Your task to perform on an android device: Open Chrome and go to the settings page Image 0: 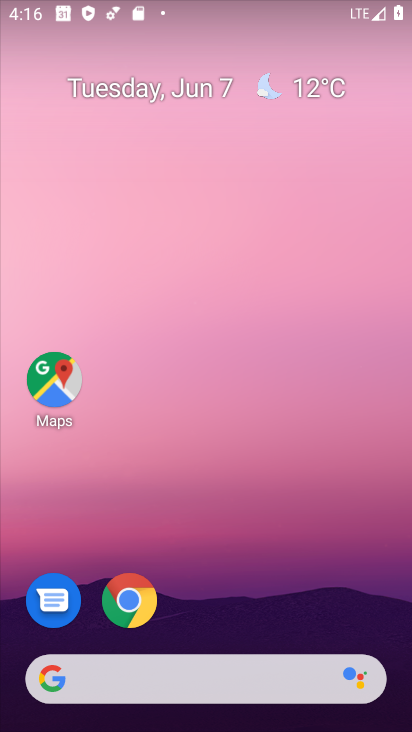
Step 0: click (133, 610)
Your task to perform on an android device: Open Chrome and go to the settings page Image 1: 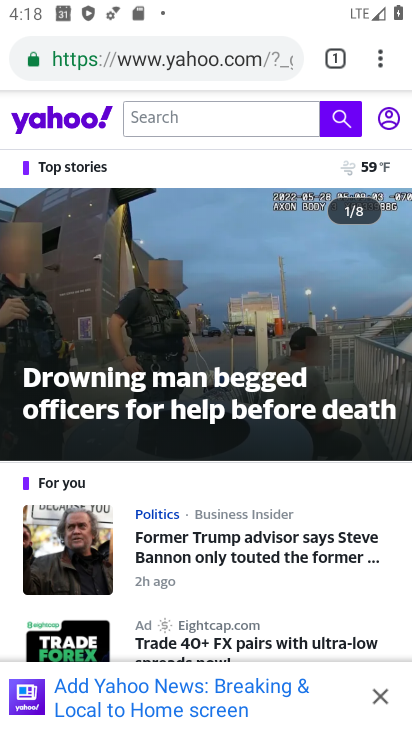
Step 1: click (387, 47)
Your task to perform on an android device: Open Chrome and go to the settings page Image 2: 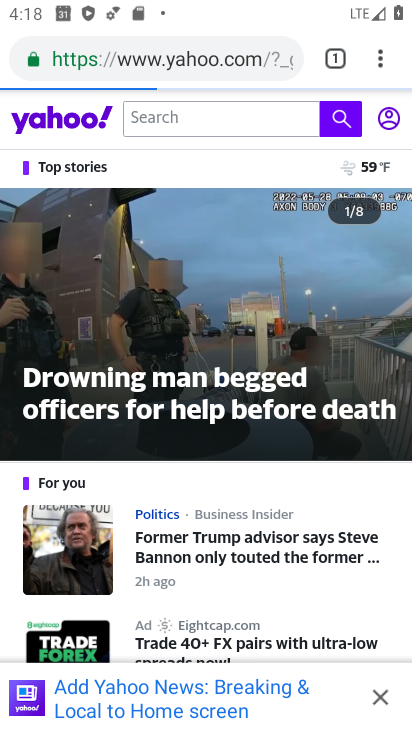
Step 2: click (388, 62)
Your task to perform on an android device: Open Chrome and go to the settings page Image 3: 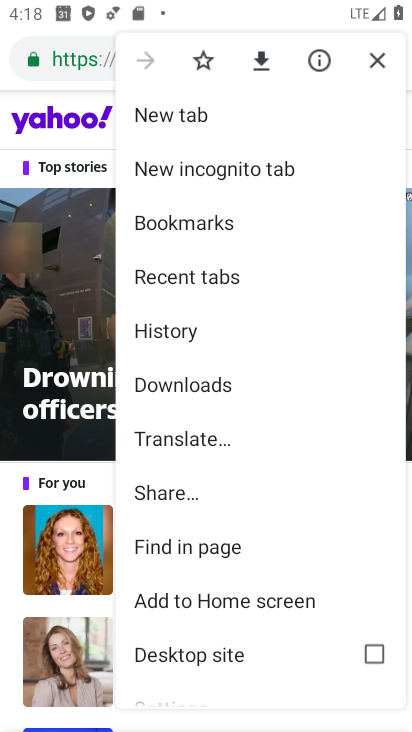
Step 3: drag from (169, 615) to (191, 315)
Your task to perform on an android device: Open Chrome and go to the settings page Image 4: 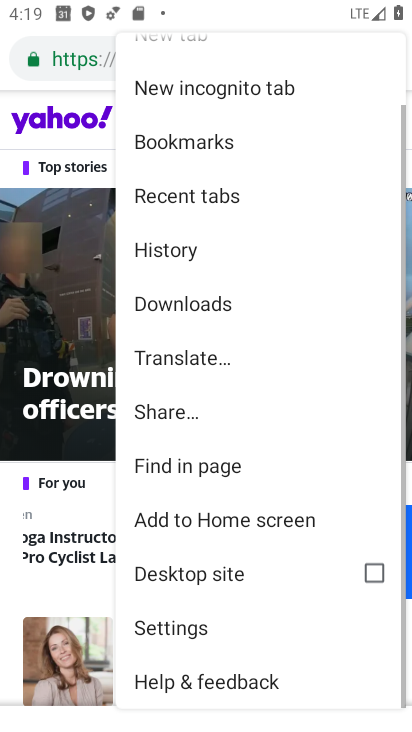
Step 4: click (147, 637)
Your task to perform on an android device: Open Chrome and go to the settings page Image 5: 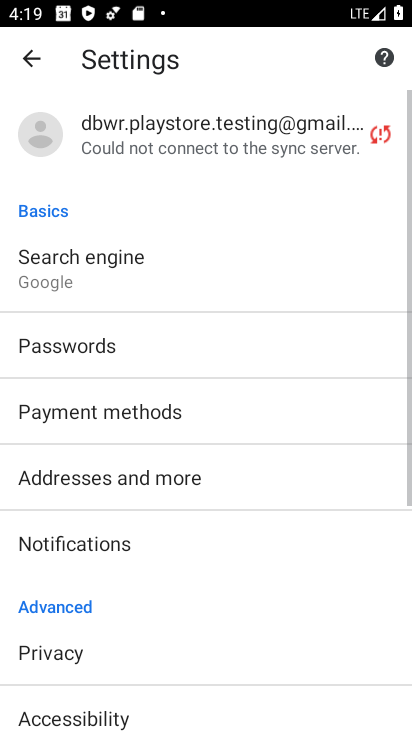
Step 5: task complete